Your task to perform on an android device: Do I have any events tomorrow? Image 0: 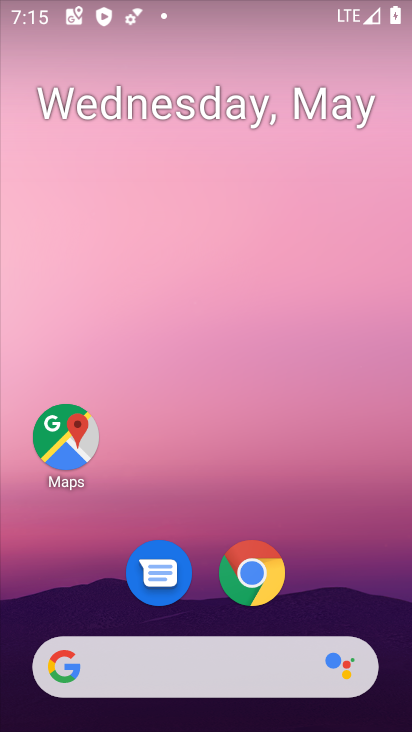
Step 0: drag from (313, 590) to (288, 253)
Your task to perform on an android device: Do I have any events tomorrow? Image 1: 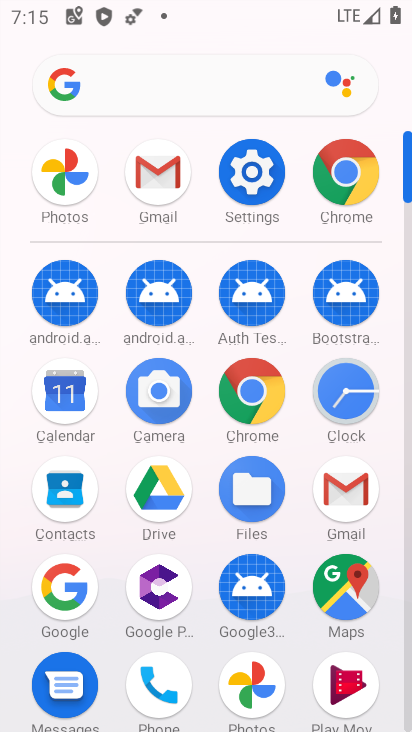
Step 1: click (71, 418)
Your task to perform on an android device: Do I have any events tomorrow? Image 2: 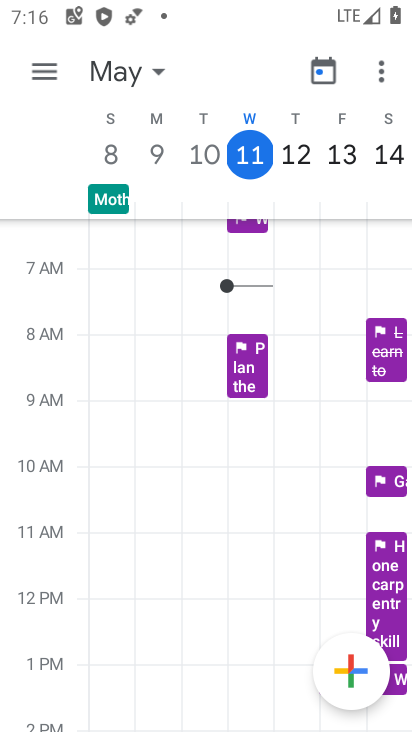
Step 2: click (119, 81)
Your task to perform on an android device: Do I have any events tomorrow? Image 3: 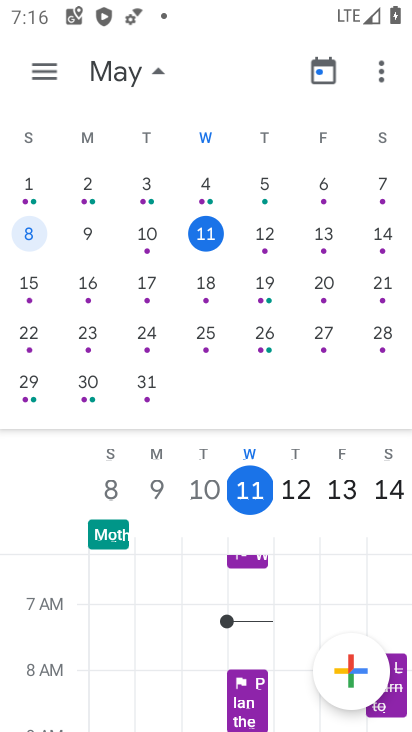
Step 3: click (49, 71)
Your task to perform on an android device: Do I have any events tomorrow? Image 4: 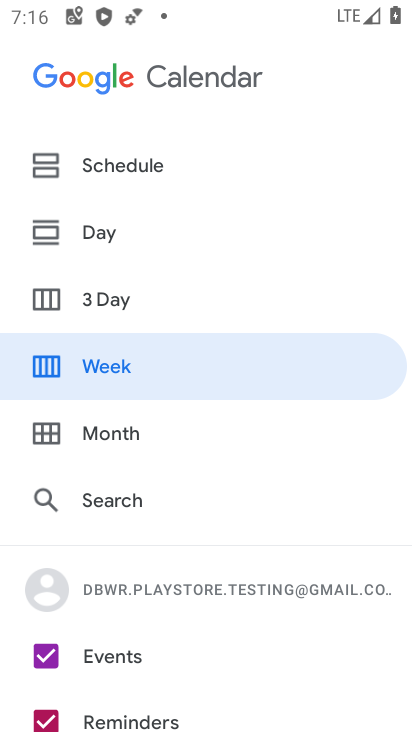
Step 4: click (99, 161)
Your task to perform on an android device: Do I have any events tomorrow? Image 5: 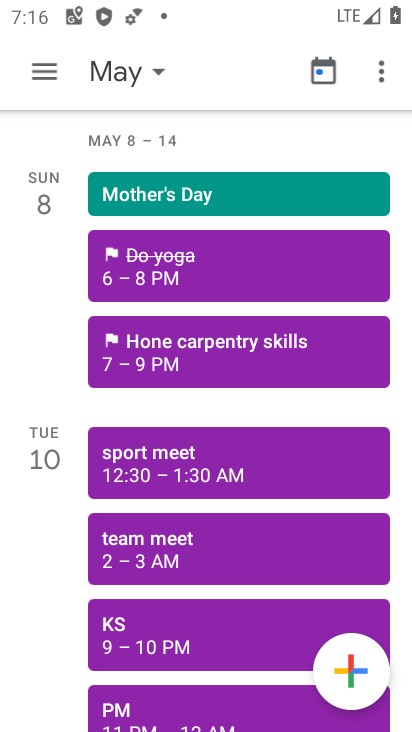
Step 5: task complete